Your task to perform on an android device: Open maps Image 0: 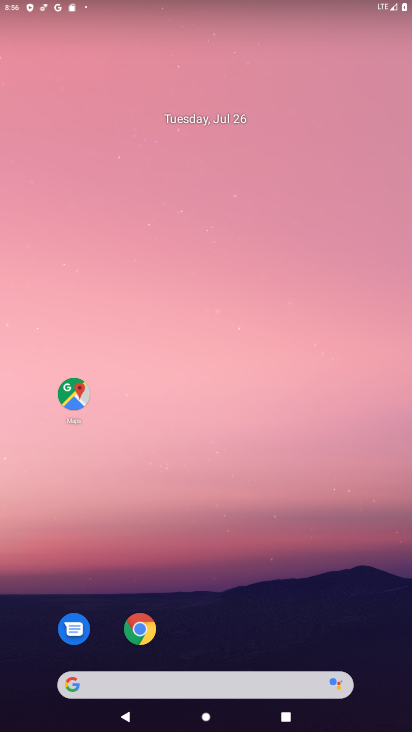
Step 0: press home button
Your task to perform on an android device: Open maps Image 1: 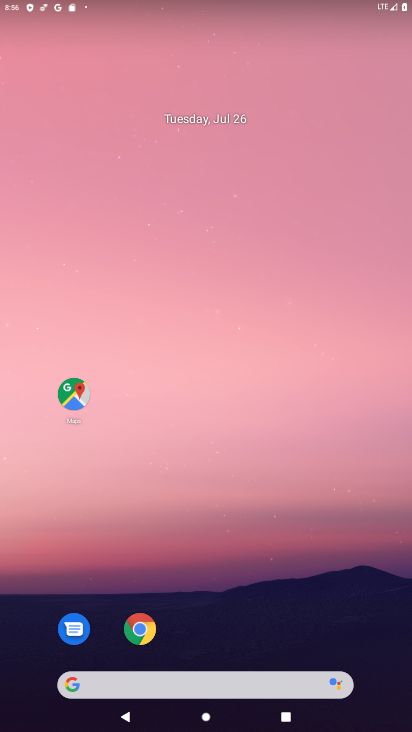
Step 1: drag from (255, 683) to (191, 148)
Your task to perform on an android device: Open maps Image 2: 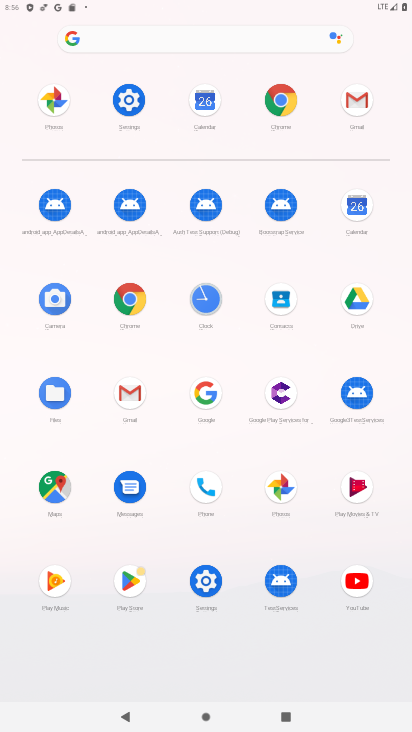
Step 2: click (56, 505)
Your task to perform on an android device: Open maps Image 3: 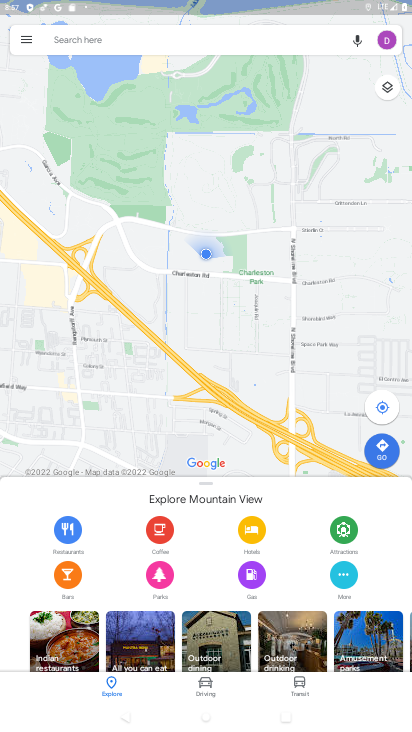
Step 3: click (226, 37)
Your task to perform on an android device: Open maps Image 4: 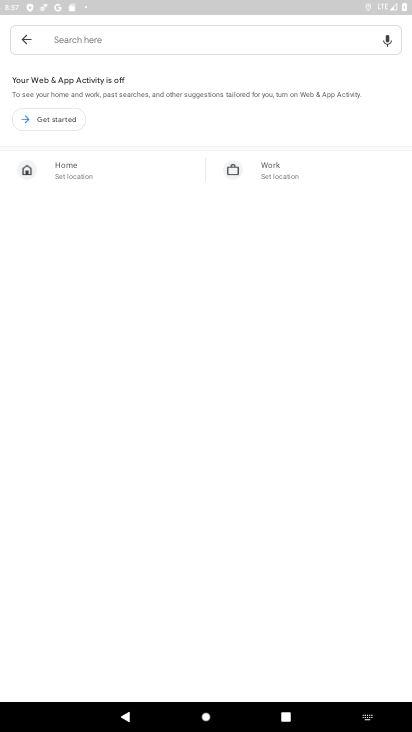
Step 4: click (29, 43)
Your task to perform on an android device: Open maps Image 5: 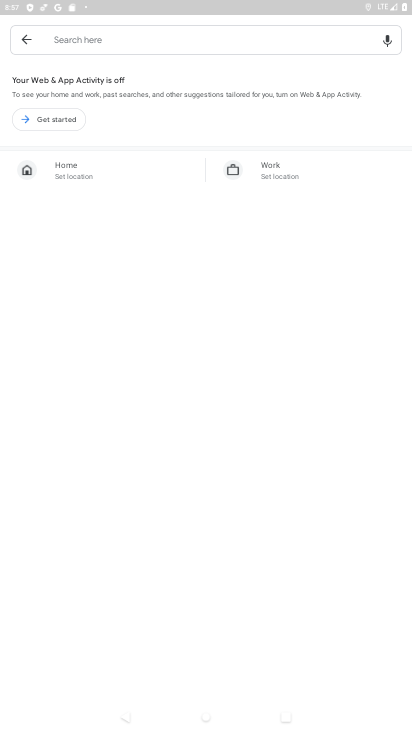
Step 5: task complete